Your task to perform on an android device: empty trash in google photos Image 0: 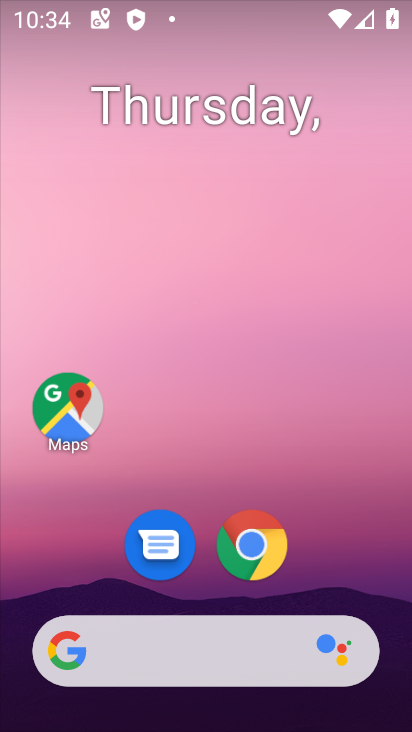
Step 0: drag from (316, 563) to (270, 111)
Your task to perform on an android device: empty trash in google photos Image 1: 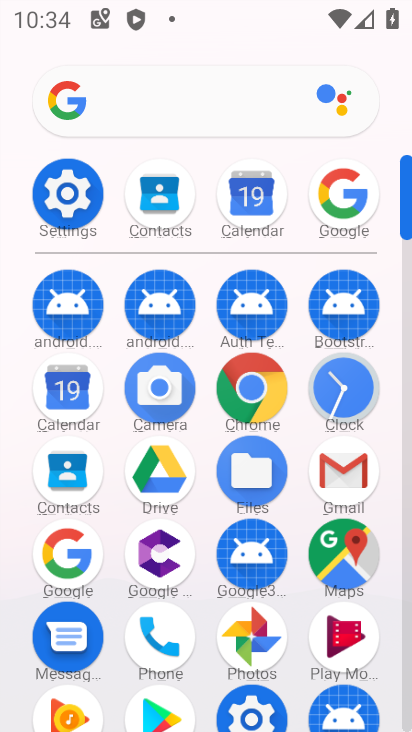
Step 1: drag from (296, 604) to (328, 353)
Your task to perform on an android device: empty trash in google photos Image 2: 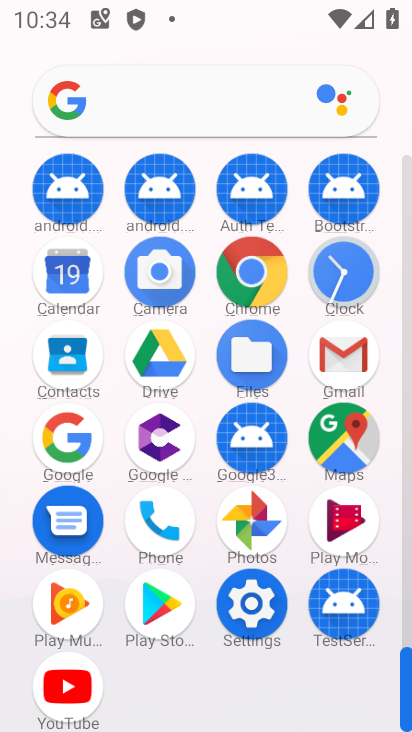
Step 2: click (252, 519)
Your task to perform on an android device: empty trash in google photos Image 3: 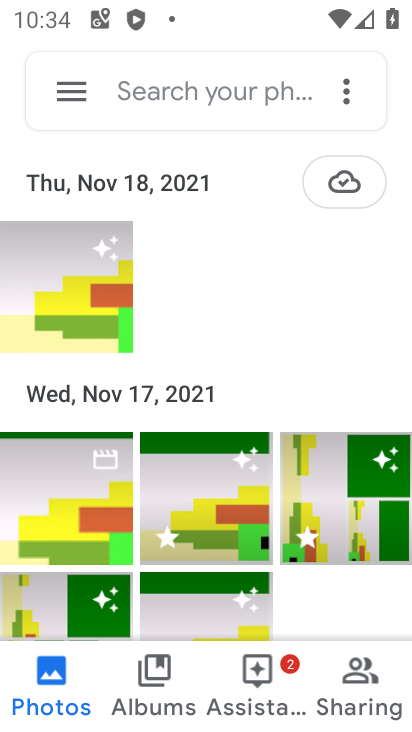
Step 3: click (72, 97)
Your task to perform on an android device: empty trash in google photos Image 4: 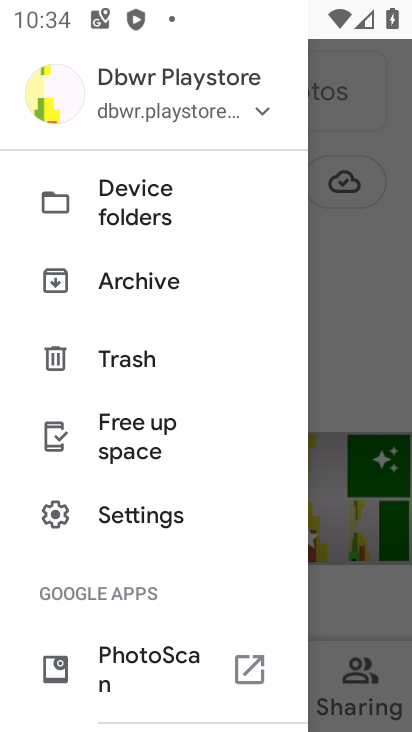
Step 4: click (134, 362)
Your task to perform on an android device: empty trash in google photos Image 5: 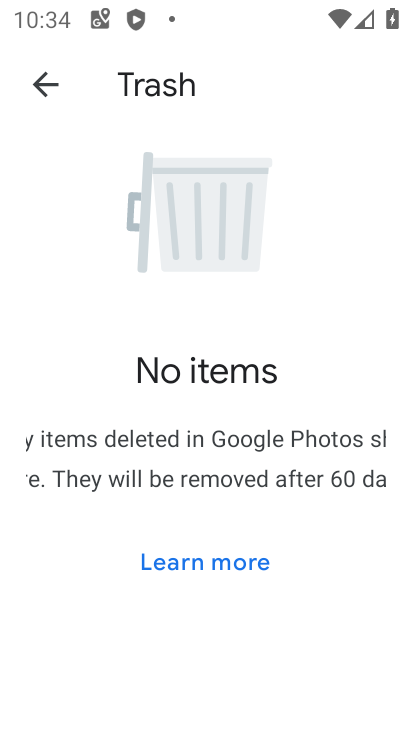
Step 5: task complete